Your task to perform on an android device: change timer sound Image 0: 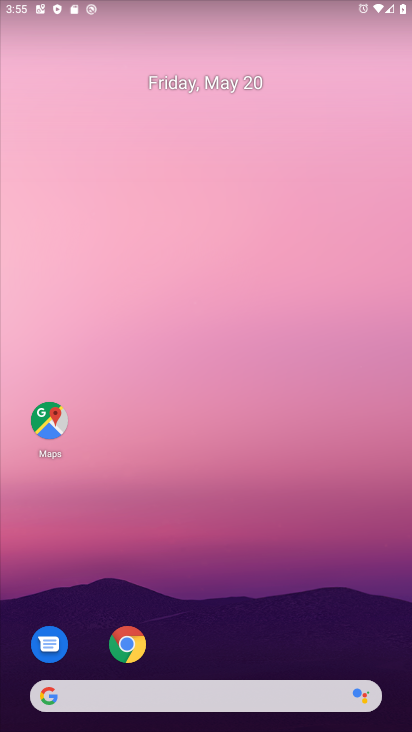
Step 0: drag from (320, 623) to (225, 85)
Your task to perform on an android device: change timer sound Image 1: 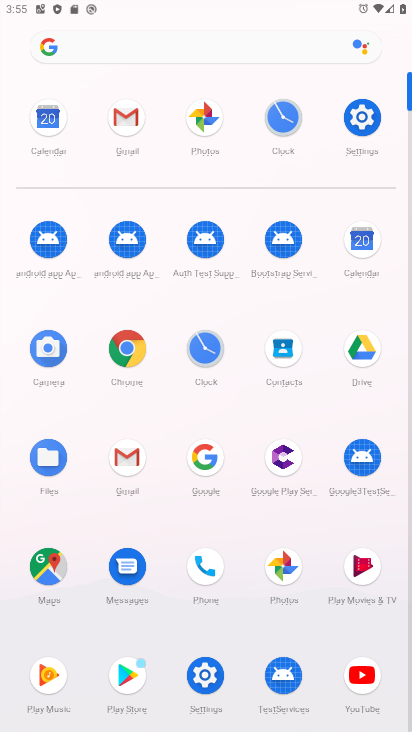
Step 1: click (295, 141)
Your task to perform on an android device: change timer sound Image 2: 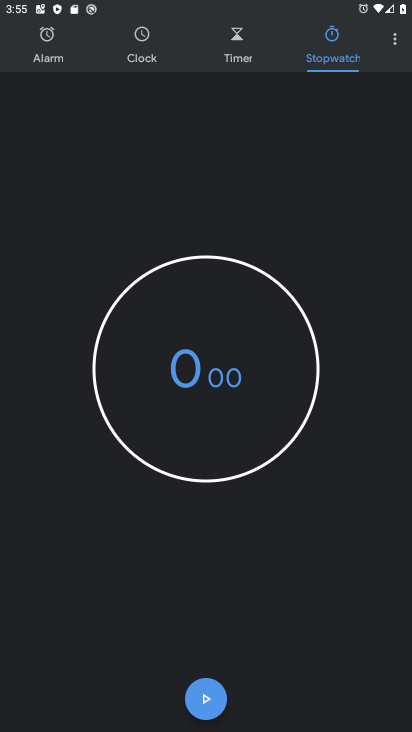
Step 2: task complete